Your task to perform on an android device: Search for seafood restaurants on Google Maps Image 0: 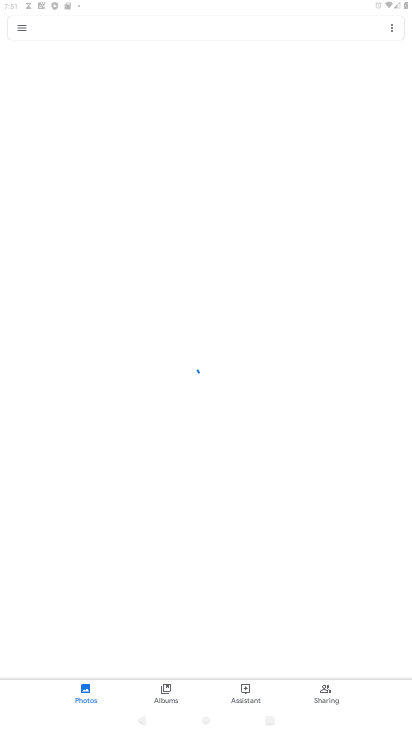
Step 0: press home button
Your task to perform on an android device: Search for seafood restaurants on Google Maps Image 1: 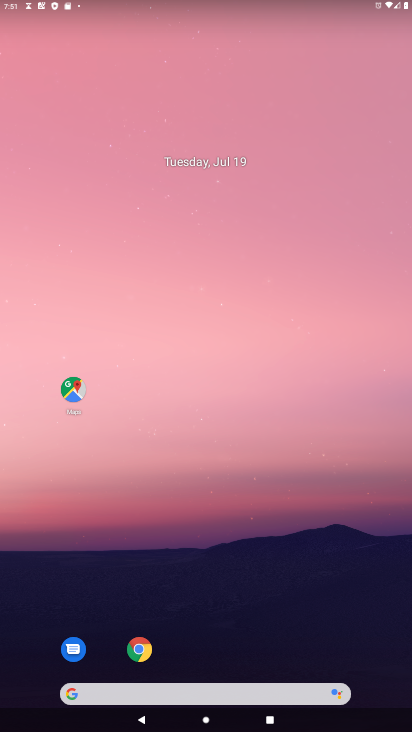
Step 1: click (71, 391)
Your task to perform on an android device: Search for seafood restaurants on Google Maps Image 2: 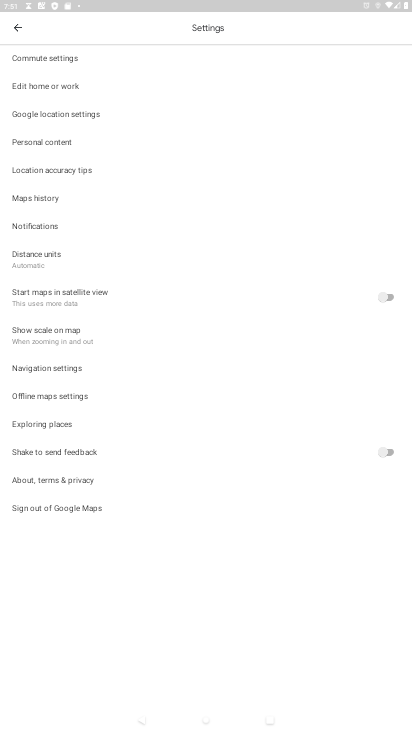
Step 2: press back button
Your task to perform on an android device: Search for seafood restaurants on Google Maps Image 3: 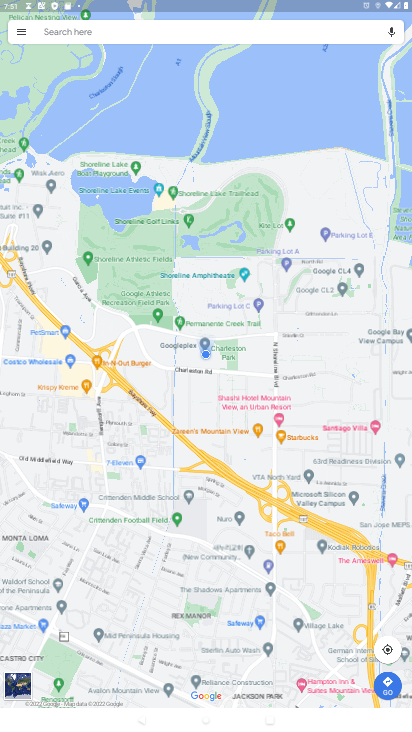
Step 3: click (204, 30)
Your task to perform on an android device: Search for seafood restaurants on Google Maps Image 4: 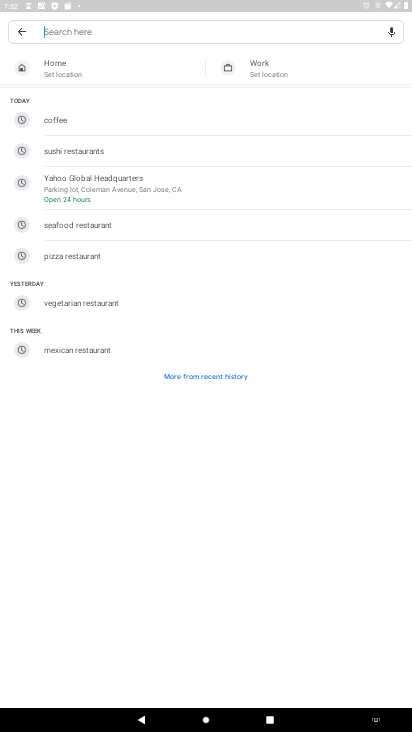
Step 4: type "seafood restaurants"
Your task to perform on an android device: Search for seafood restaurants on Google Maps Image 5: 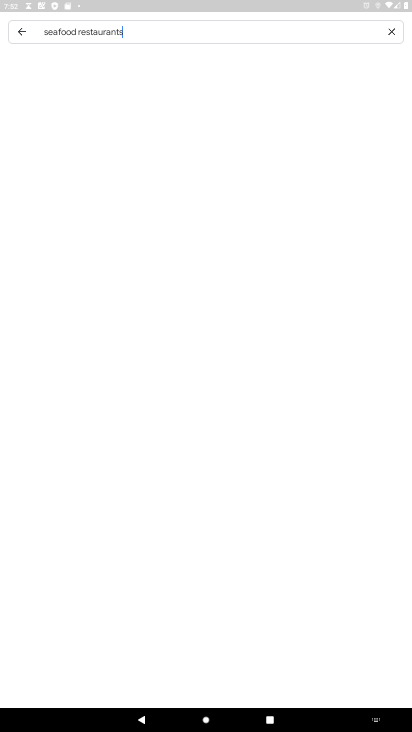
Step 5: type ""
Your task to perform on an android device: Search for seafood restaurants on Google Maps Image 6: 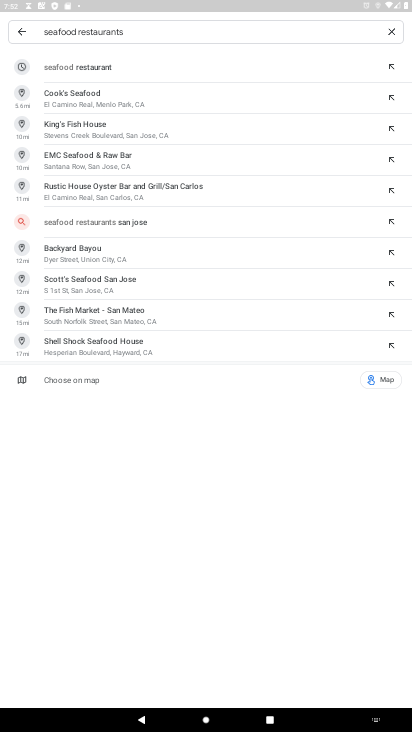
Step 6: click (108, 62)
Your task to perform on an android device: Search for seafood restaurants on Google Maps Image 7: 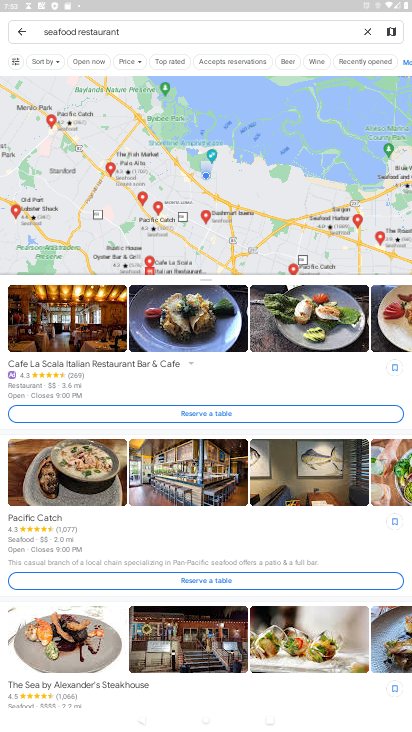
Step 7: task complete